Your task to perform on an android device: check out phone information Image 0: 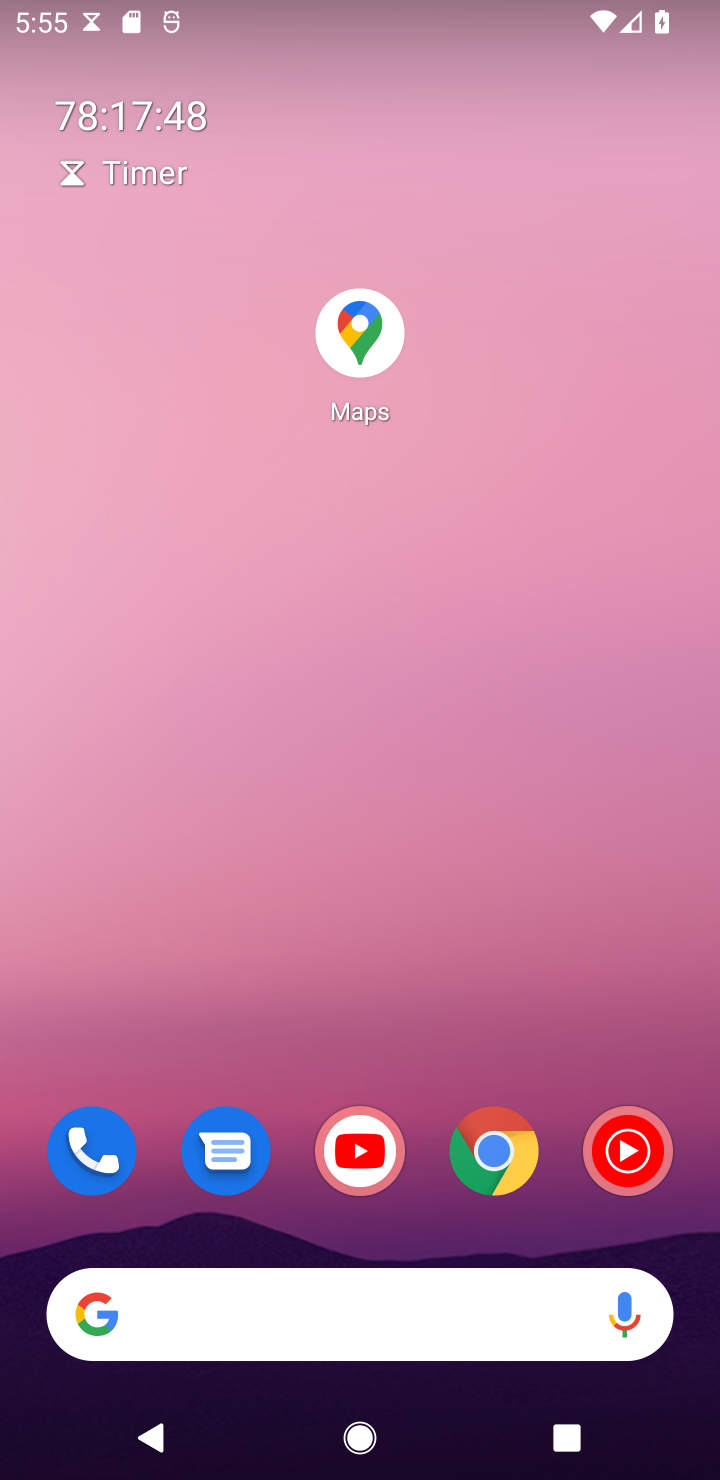
Step 0: drag from (378, 849) to (372, 345)
Your task to perform on an android device: check out phone information Image 1: 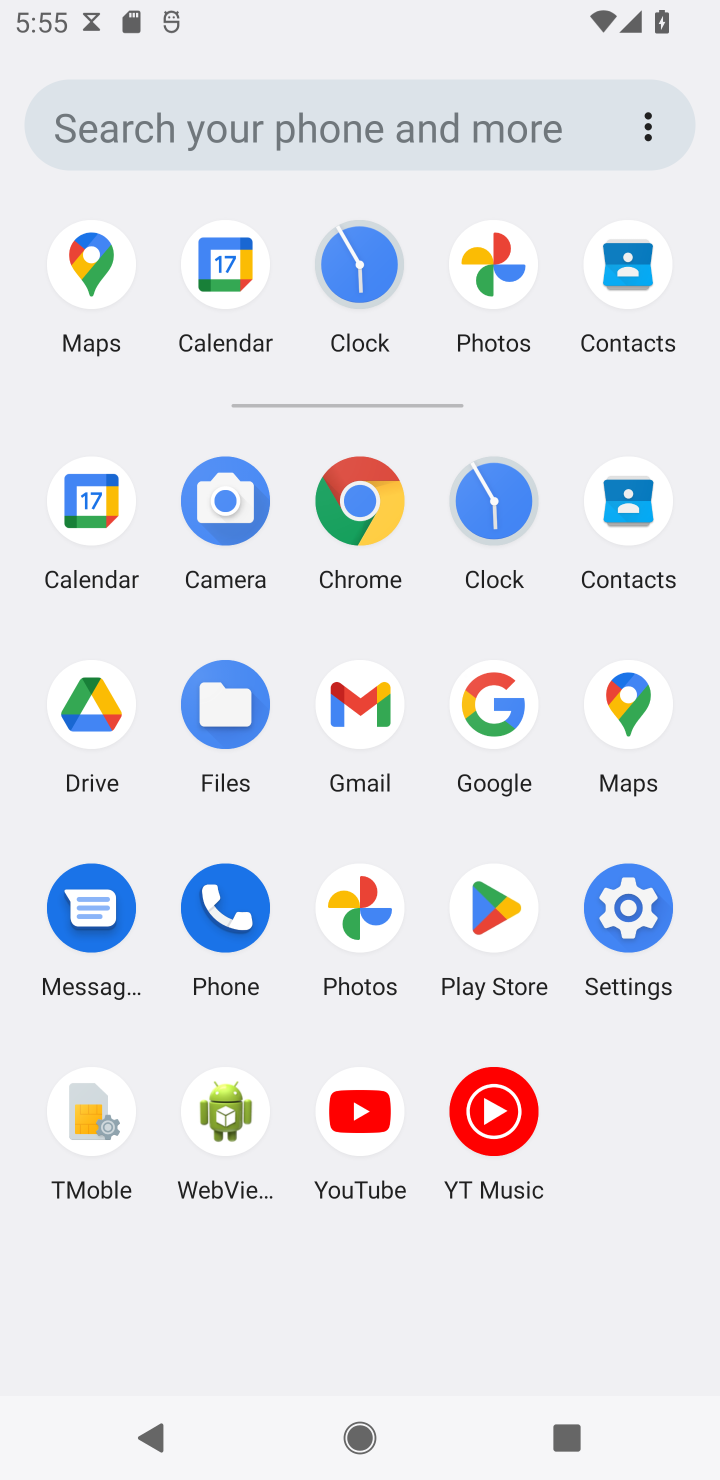
Step 1: click (605, 911)
Your task to perform on an android device: check out phone information Image 2: 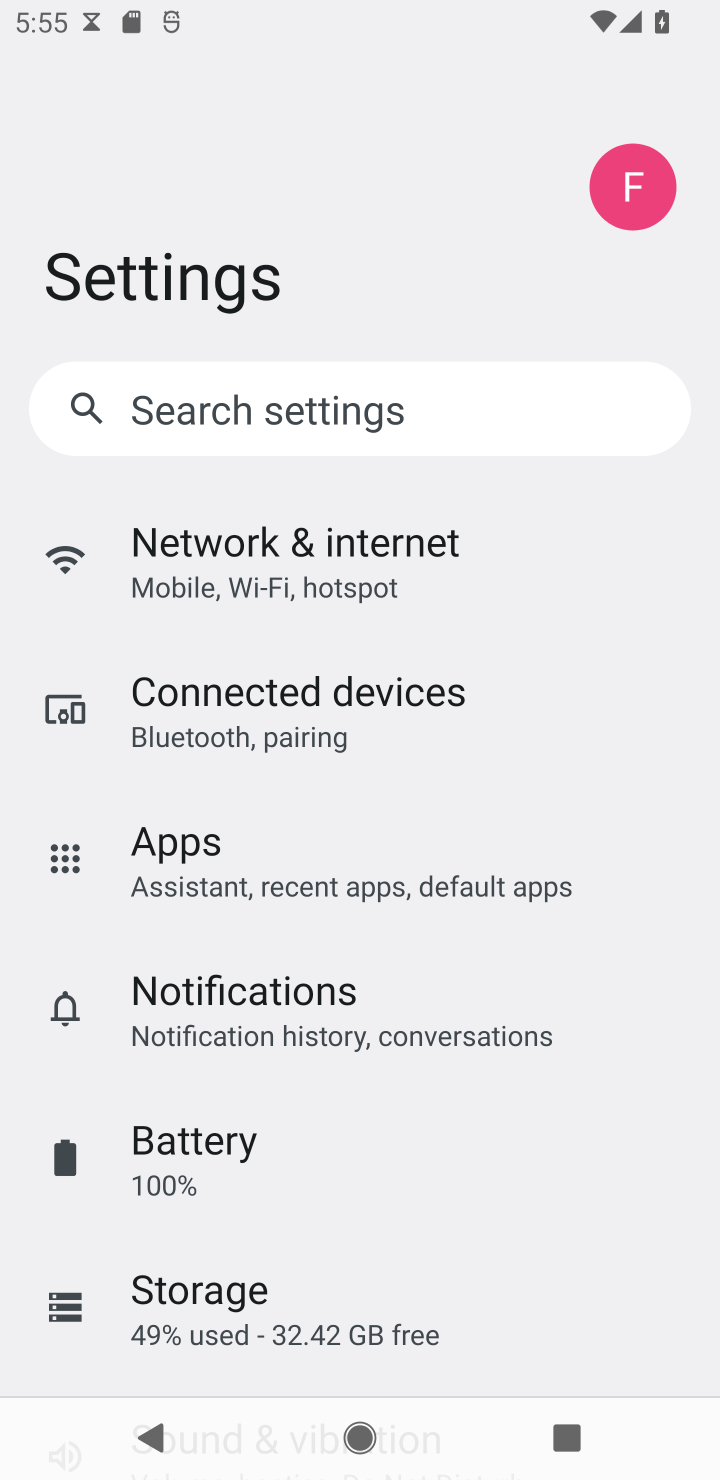
Step 2: drag from (272, 1261) to (310, 159)
Your task to perform on an android device: check out phone information Image 3: 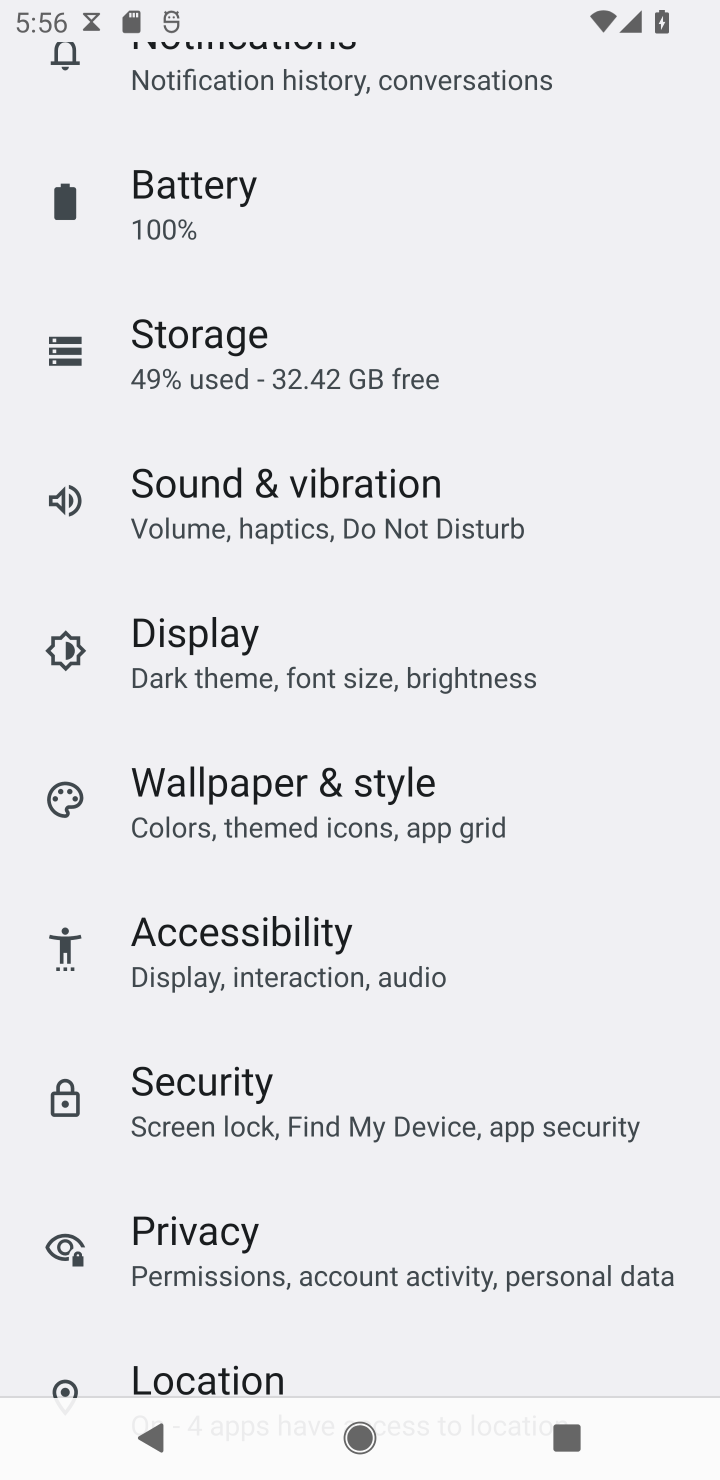
Step 3: drag from (112, 1103) to (260, 237)
Your task to perform on an android device: check out phone information Image 4: 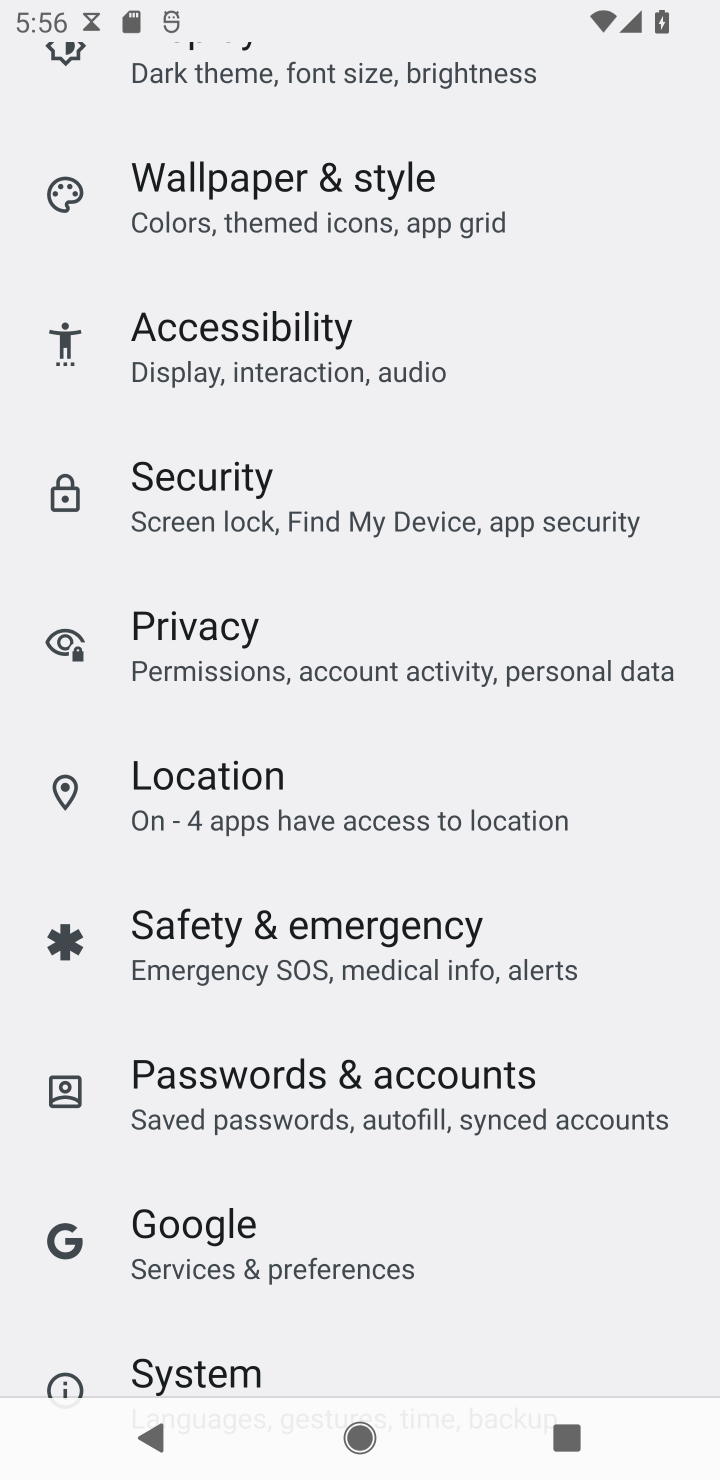
Step 4: drag from (247, 1298) to (471, 256)
Your task to perform on an android device: check out phone information Image 5: 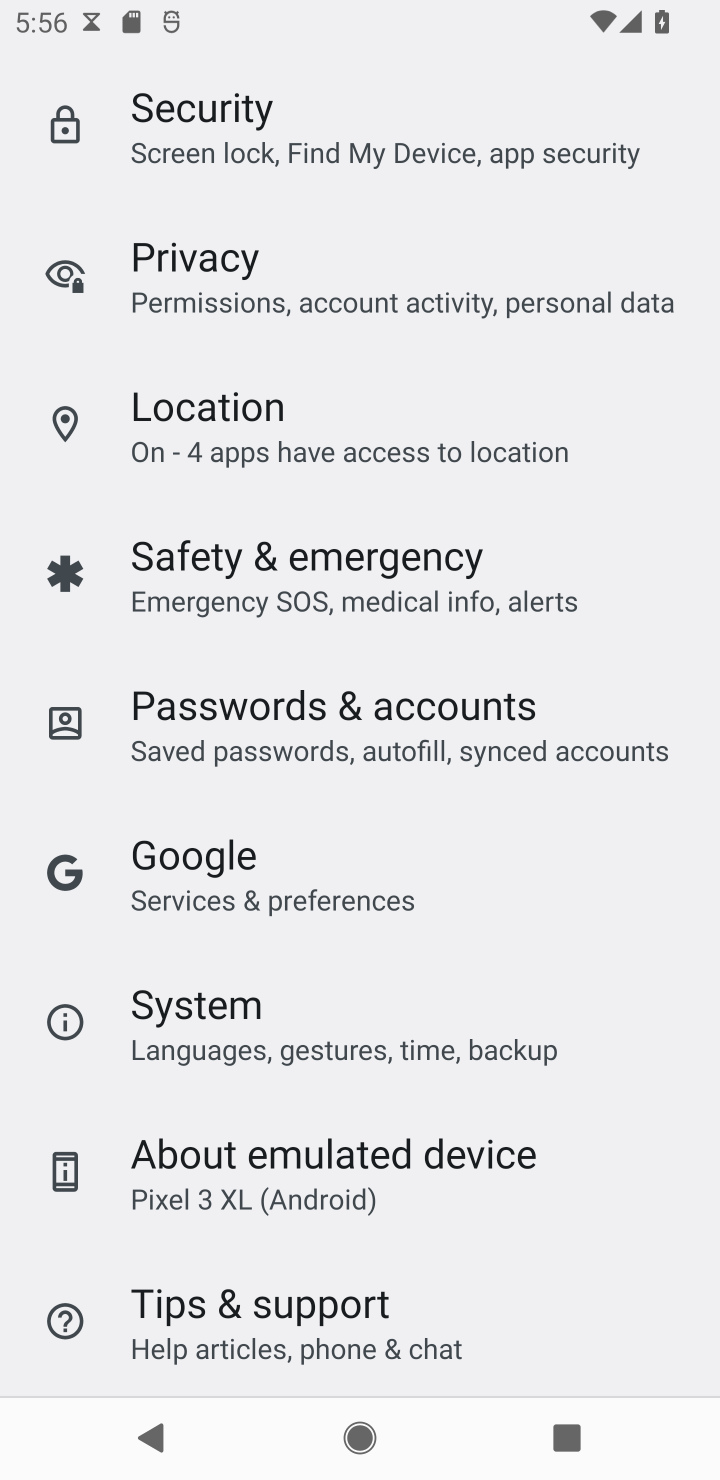
Step 5: click (324, 1128)
Your task to perform on an android device: check out phone information Image 6: 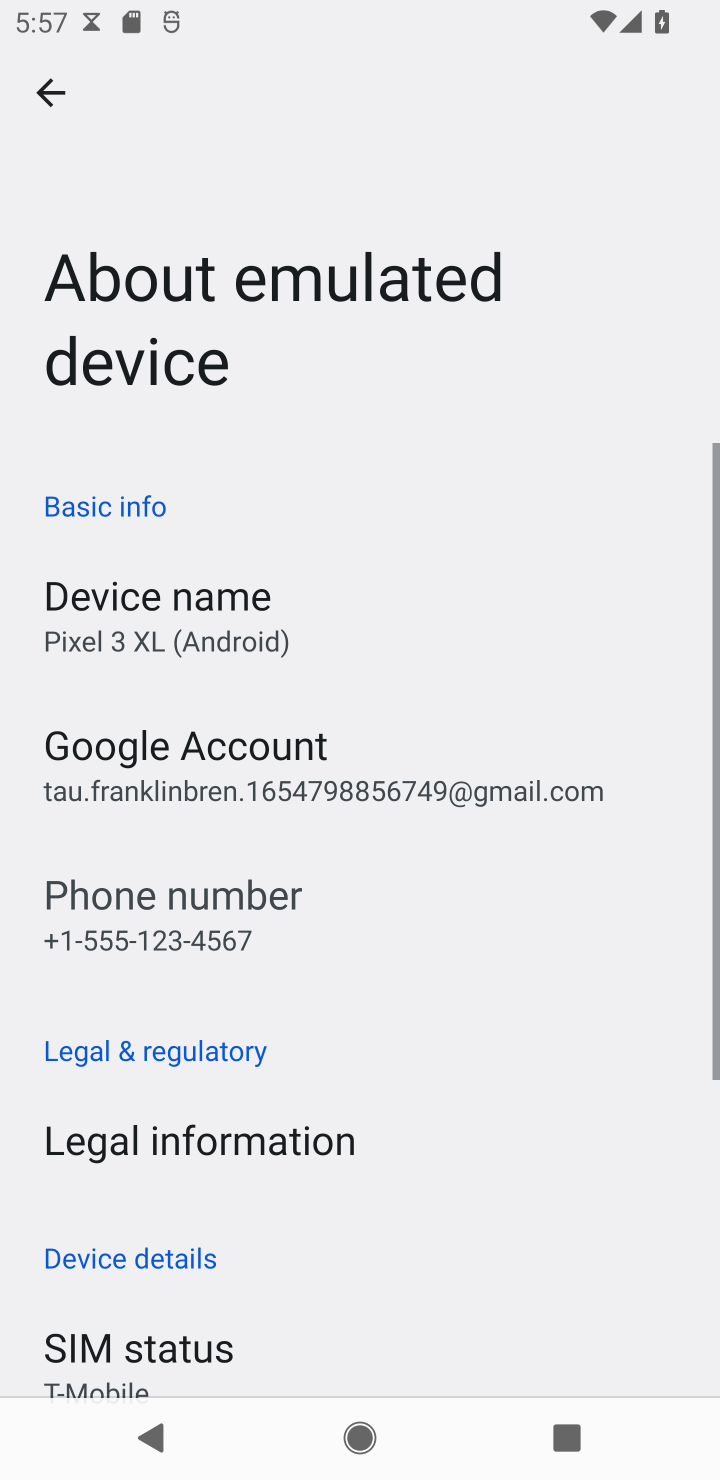
Step 6: task complete